Your task to perform on an android device: change your default location settings in chrome Image 0: 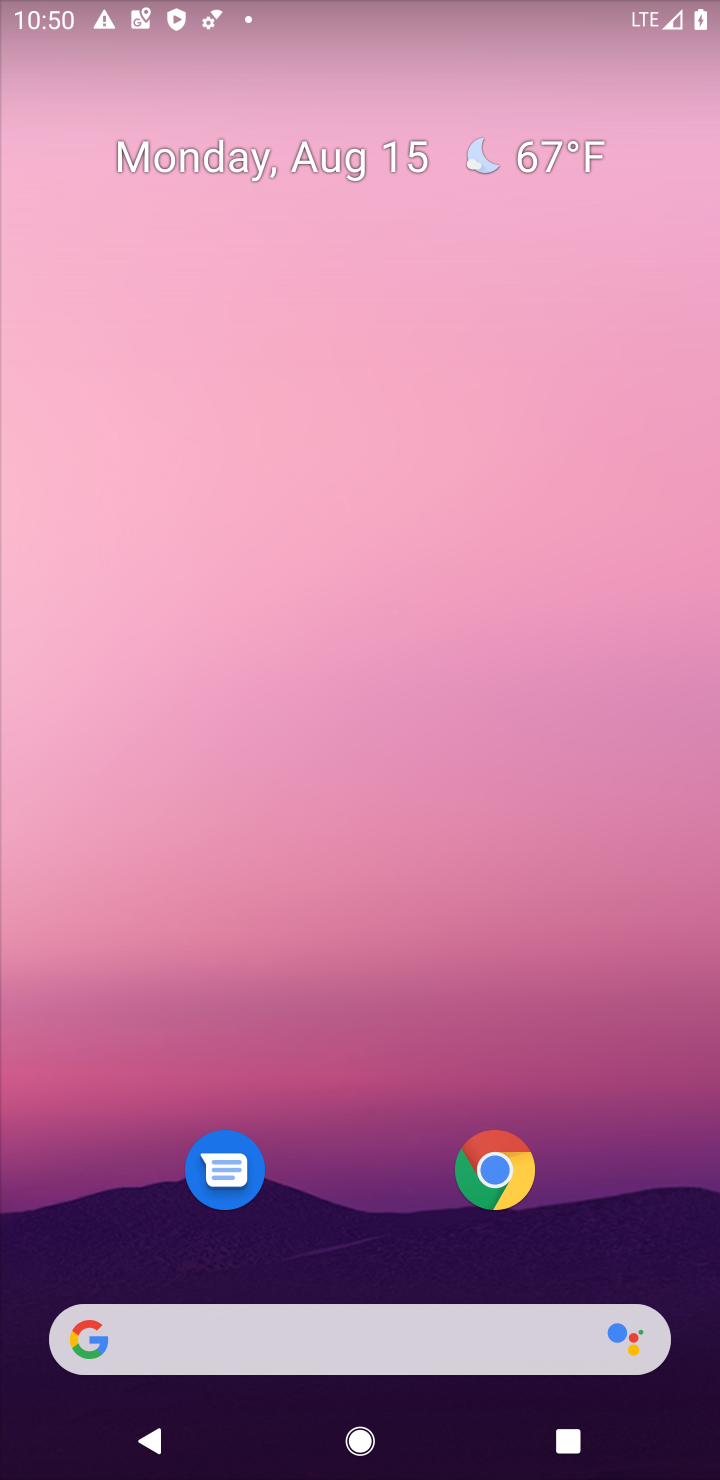
Step 0: drag from (378, 1249) to (435, 5)
Your task to perform on an android device: change your default location settings in chrome Image 1: 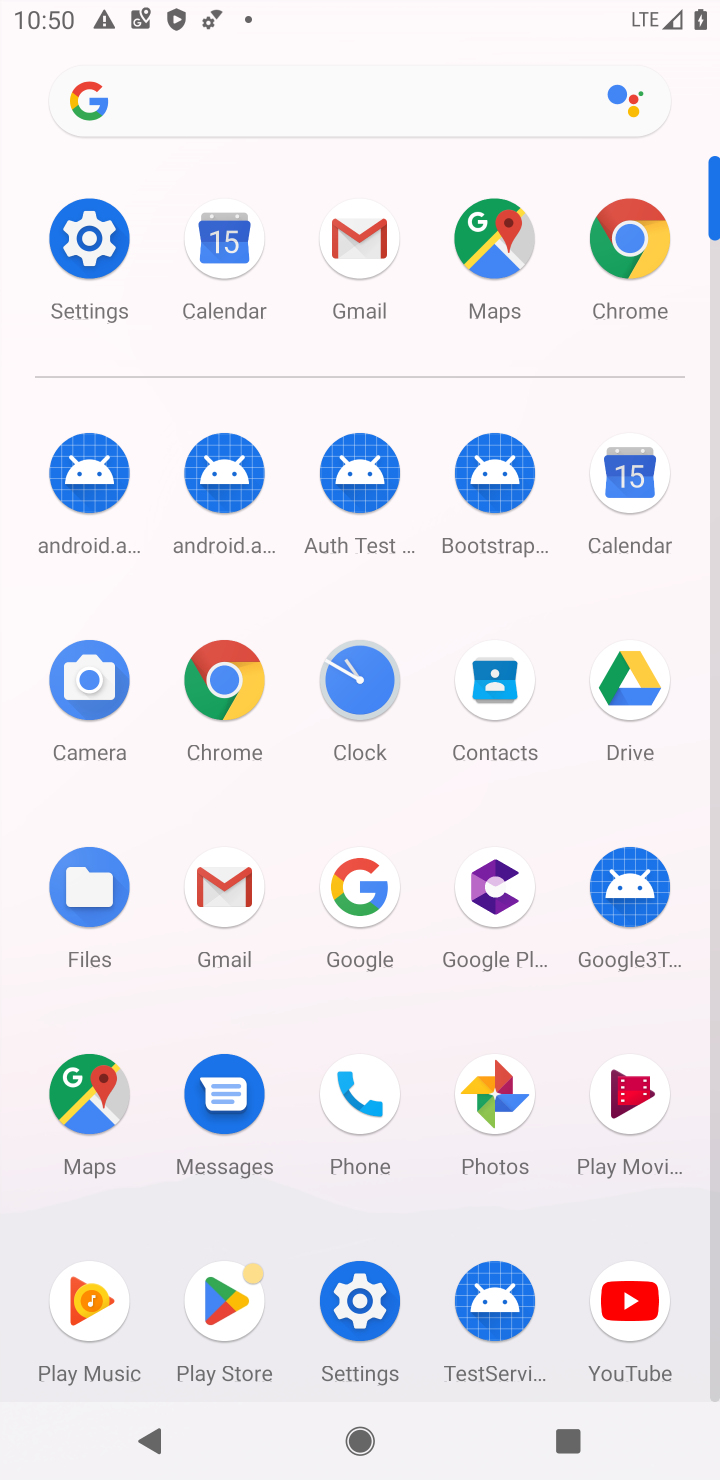
Step 1: click (206, 687)
Your task to perform on an android device: change your default location settings in chrome Image 2: 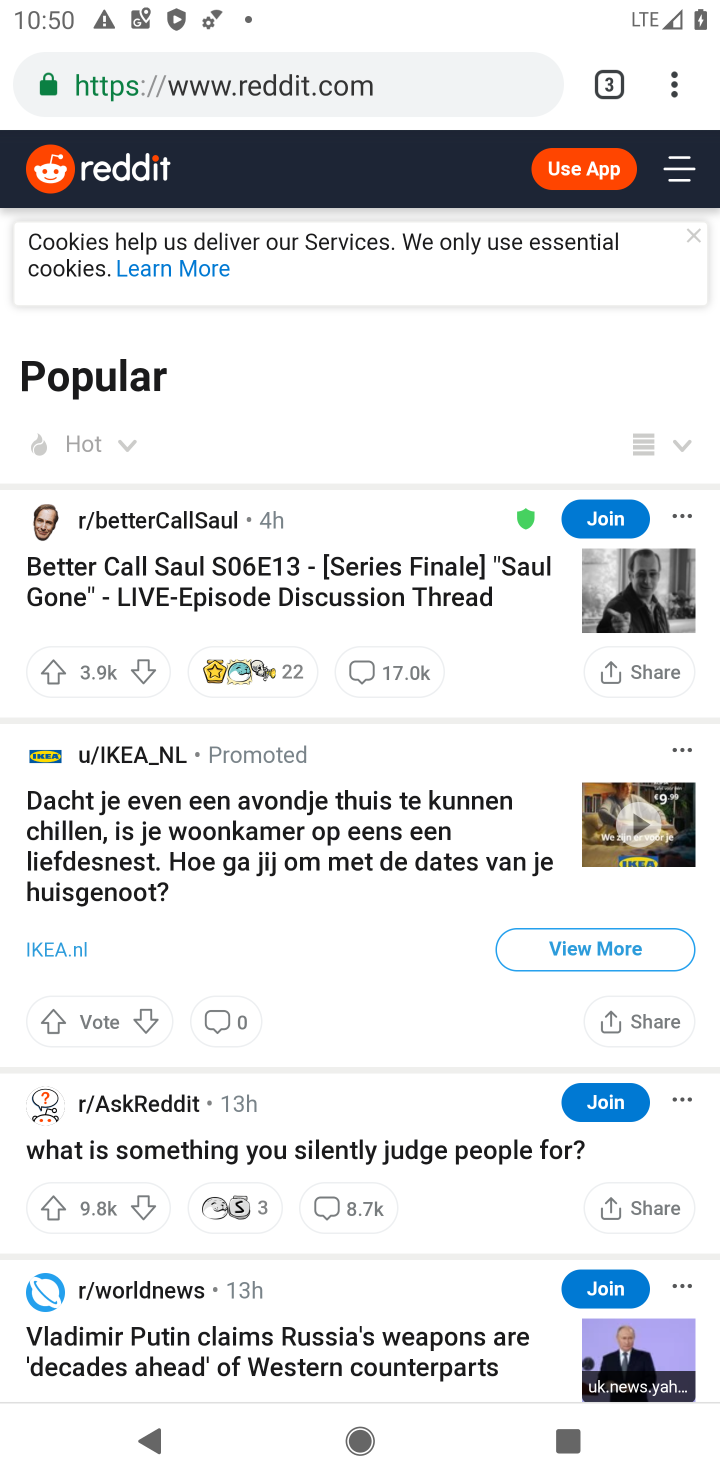
Step 2: click (673, 81)
Your task to perform on an android device: change your default location settings in chrome Image 3: 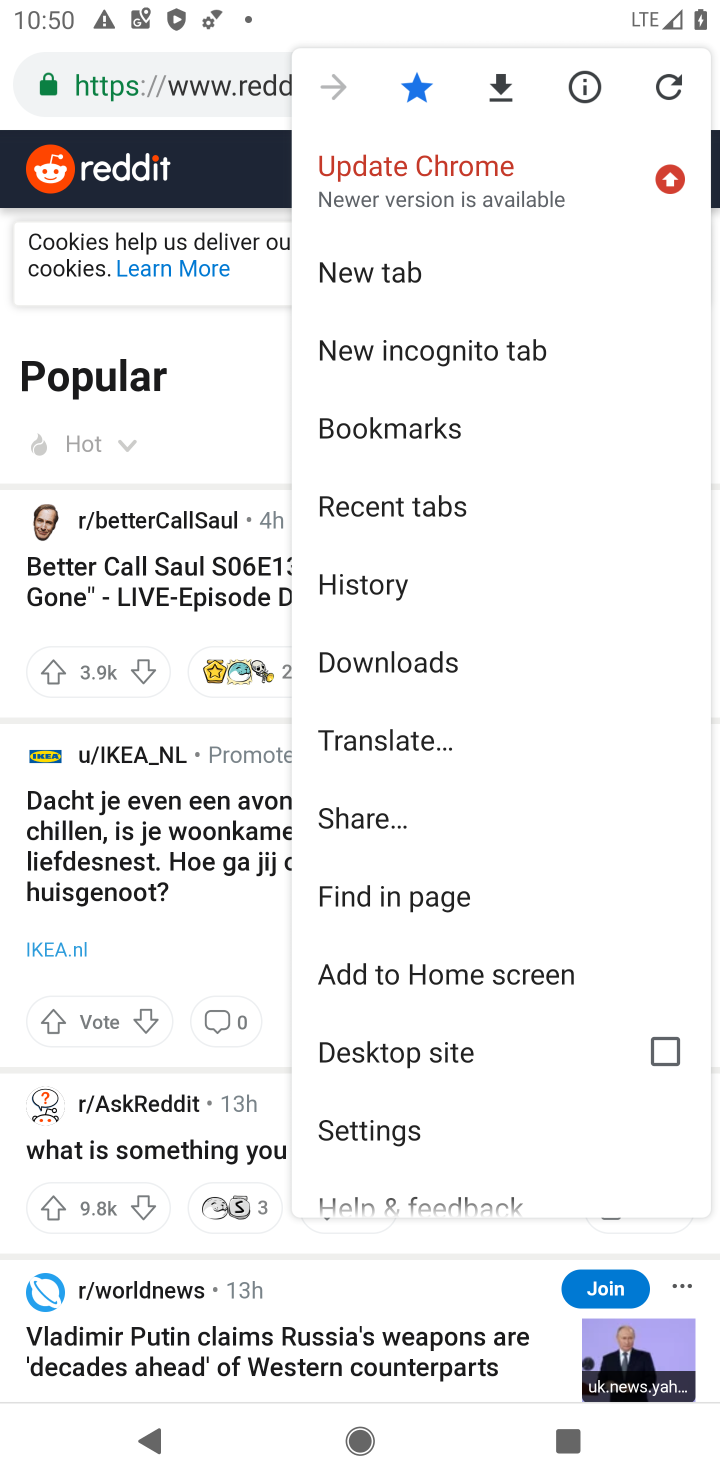
Step 3: click (667, 86)
Your task to perform on an android device: change your default location settings in chrome Image 4: 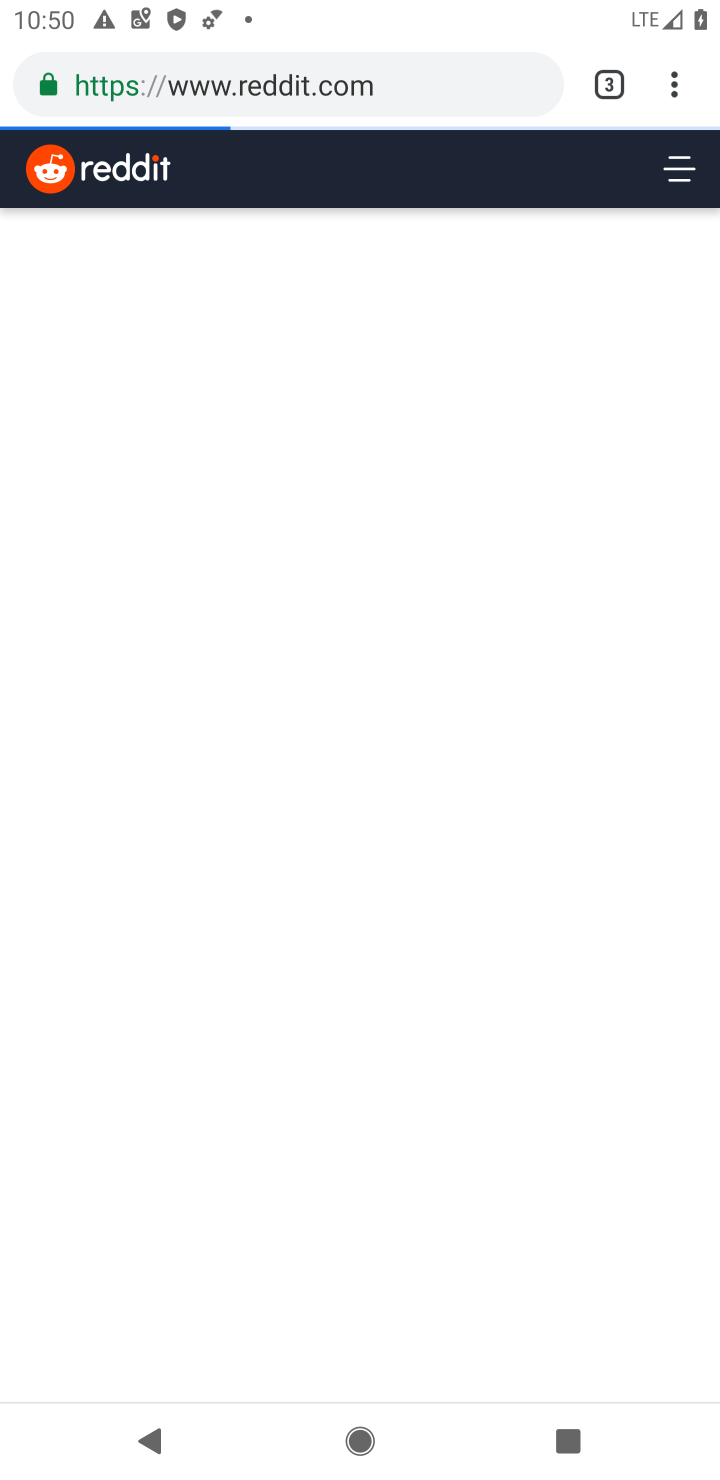
Step 4: click (675, 72)
Your task to perform on an android device: change your default location settings in chrome Image 5: 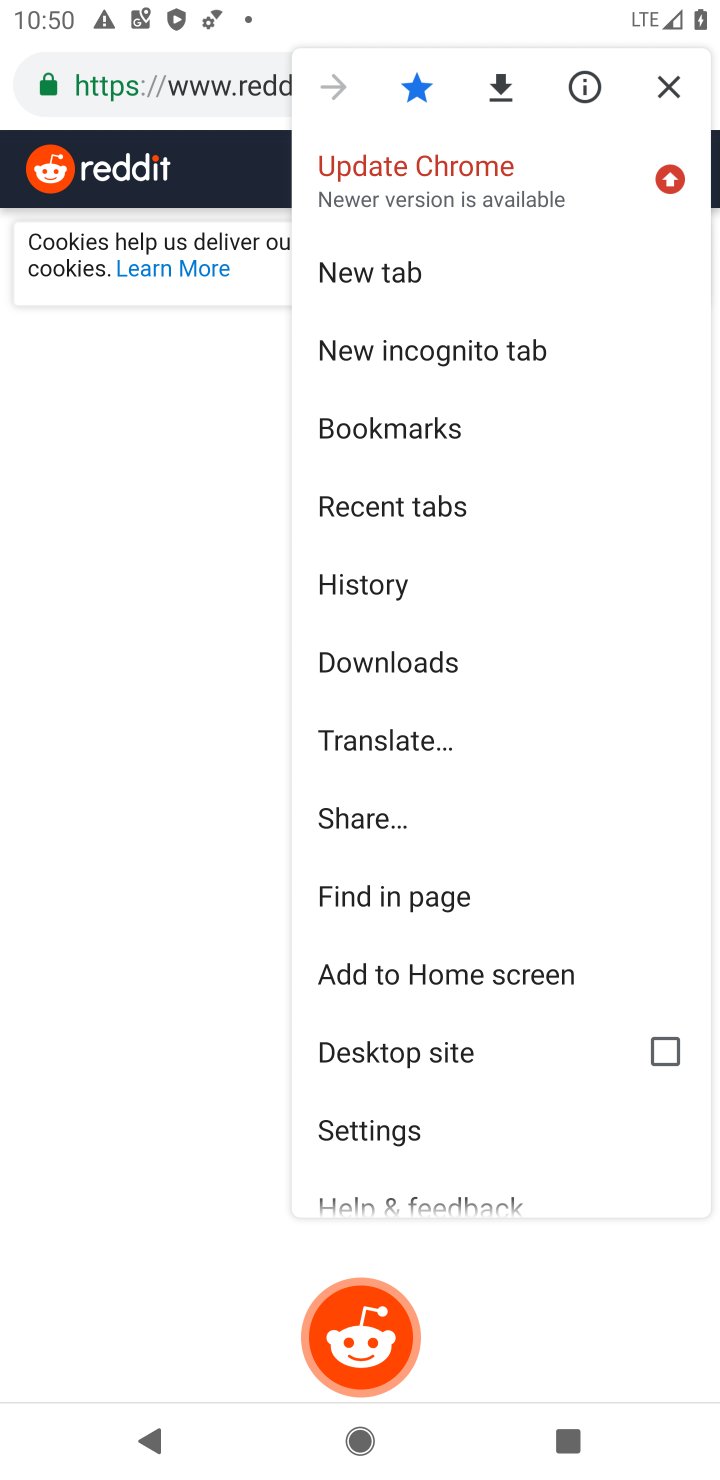
Step 5: click (443, 1127)
Your task to perform on an android device: change your default location settings in chrome Image 6: 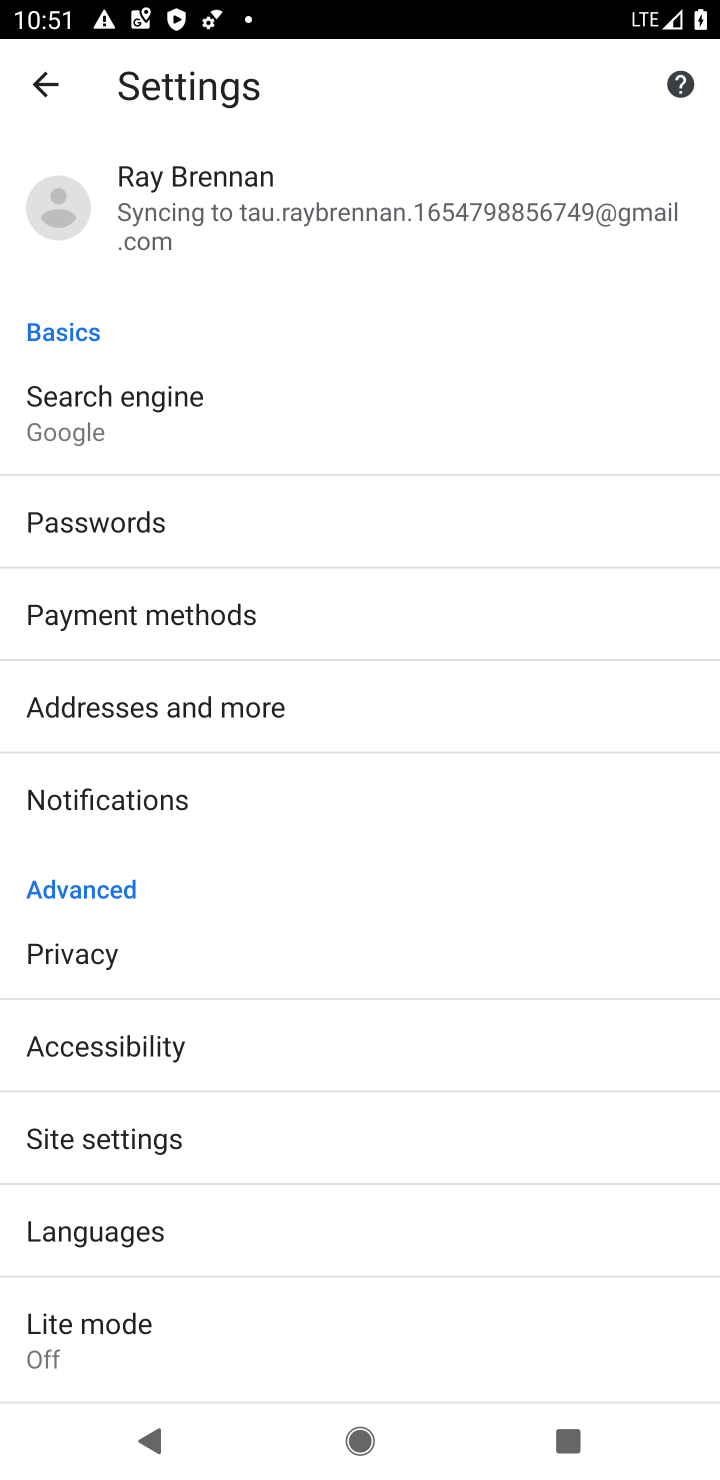
Step 6: click (187, 1131)
Your task to perform on an android device: change your default location settings in chrome Image 7: 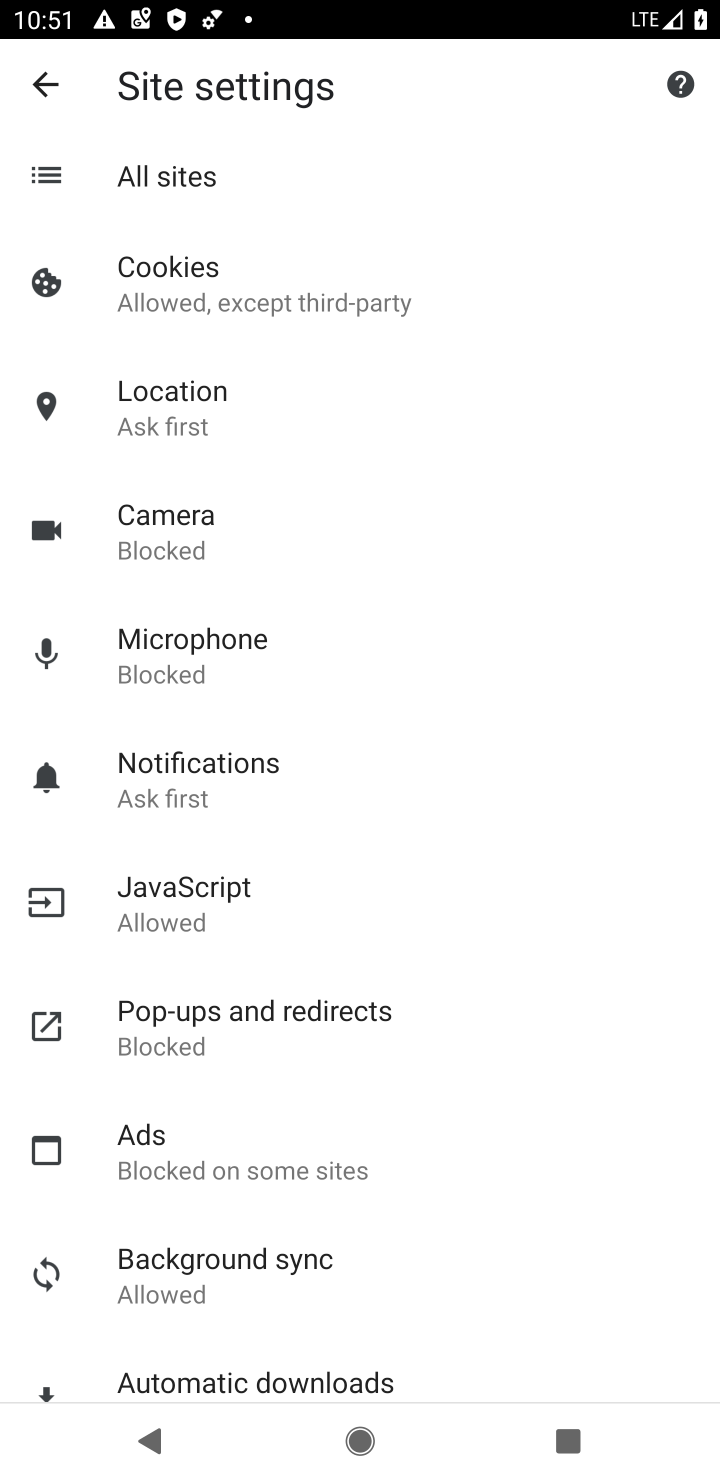
Step 7: click (239, 403)
Your task to perform on an android device: change your default location settings in chrome Image 8: 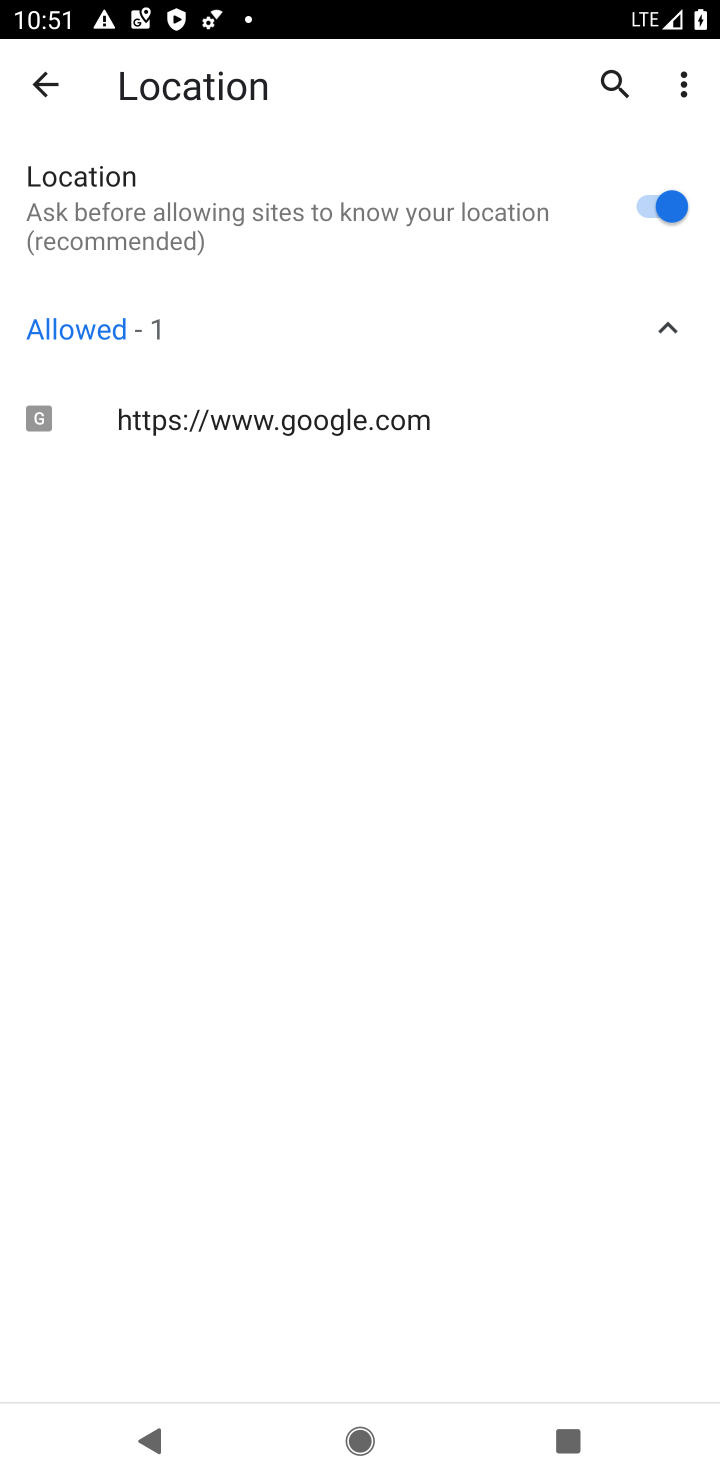
Step 8: click (652, 194)
Your task to perform on an android device: change your default location settings in chrome Image 9: 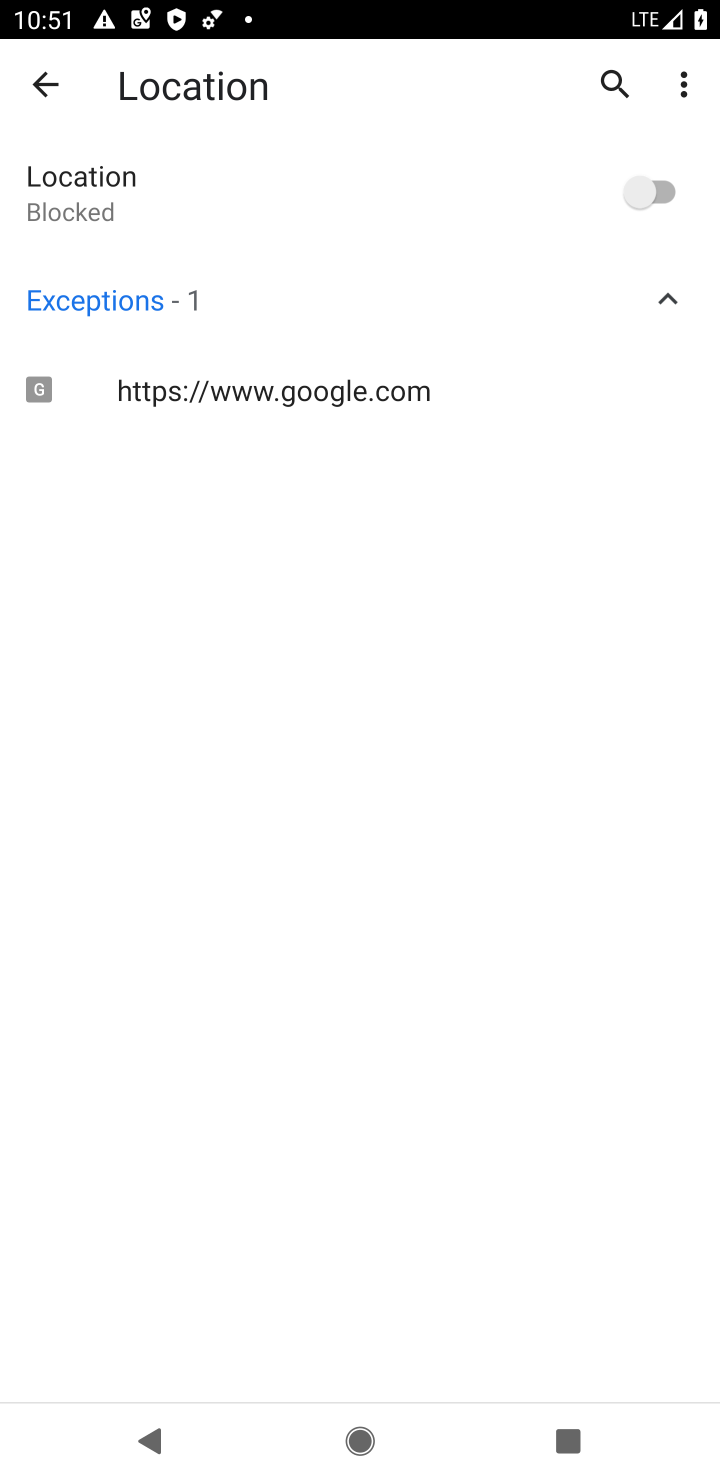
Step 9: task complete